Your task to perform on an android device: Open Youtube and go to "Your channel" Image 0: 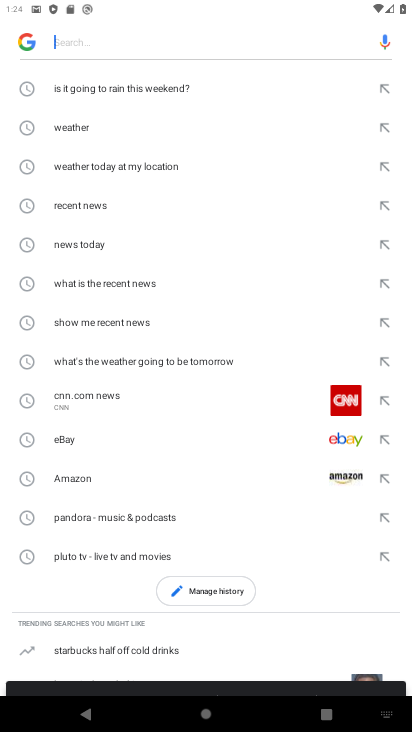
Step 0: press home button
Your task to perform on an android device: Open Youtube and go to "Your channel" Image 1: 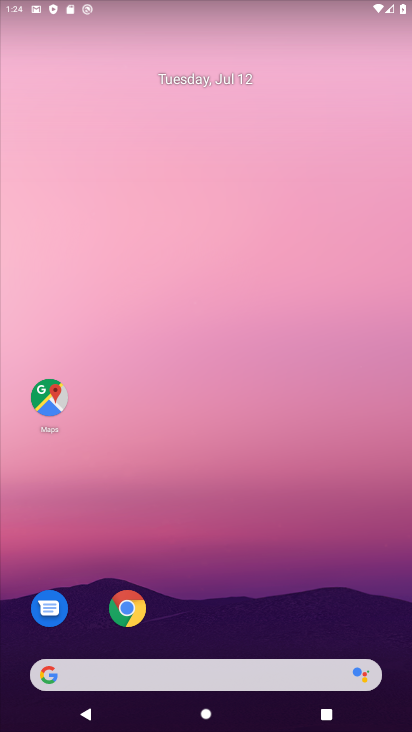
Step 1: drag from (312, 617) to (251, 60)
Your task to perform on an android device: Open Youtube and go to "Your channel" Image 2: 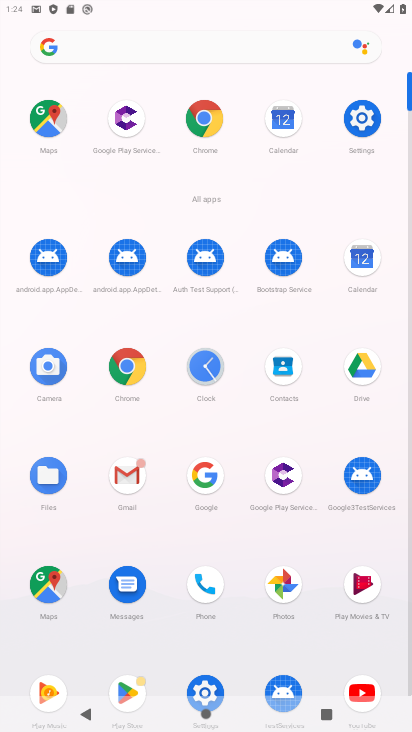
Step 2: click (367, 690)
Your task to perform on an android device: Open Youtube and go to "Your channel" Image 3: 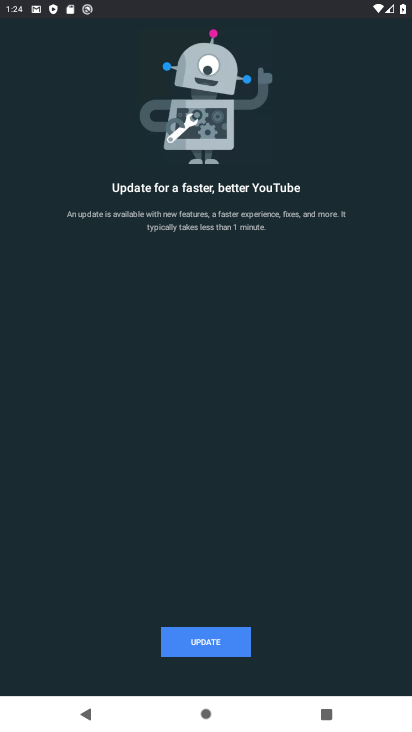
Step 3: click (232, 646)
Your task to perform on an android device: Open Youtube and go to "Your channel" Image 4: 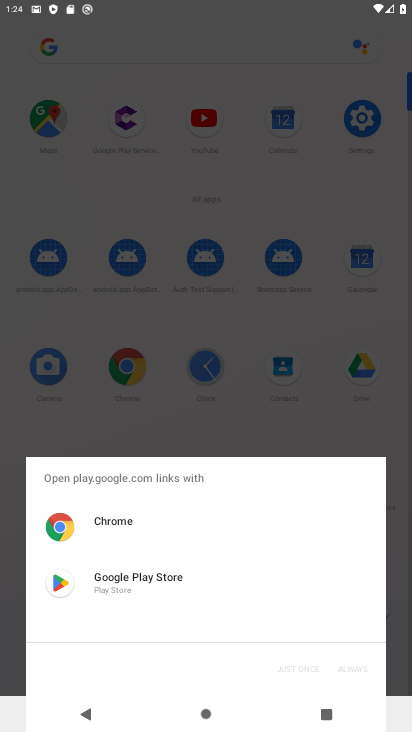
Step 4: click (212, 589)
Your task to perform on an android device: Open Youtube and go to "Your channel" Image 5: 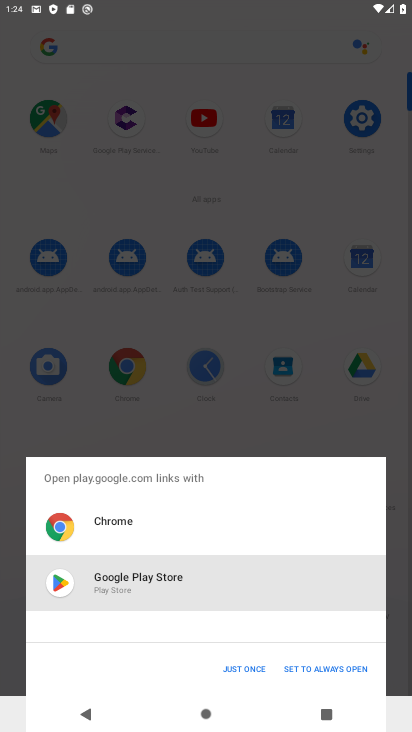
Step 5: click (237, 670)
Your task to perform on an android device: Open Youtube and go to "Your channel" Image 6: 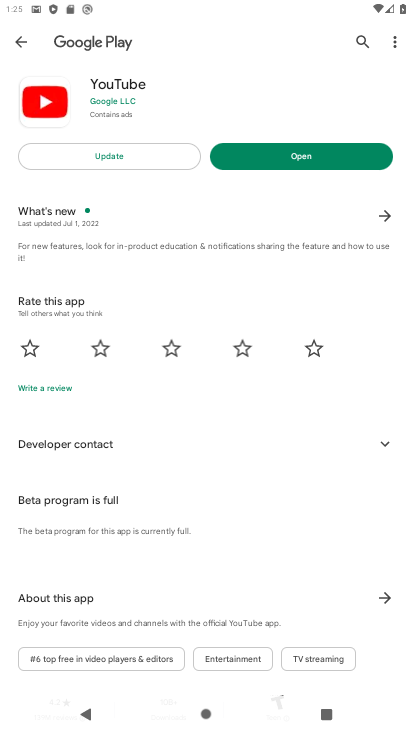
Step 6: click (138, 159)
Your task to perform on an android device: Open Youtube and go to "Your channel" Image 7: 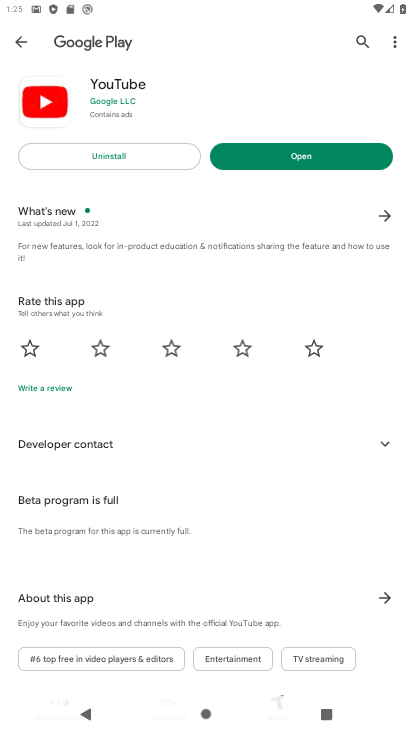
Step 7: click (312, 154)
Your task to perform on an android device: Open Youtube and go to "Your channel" Image 8: 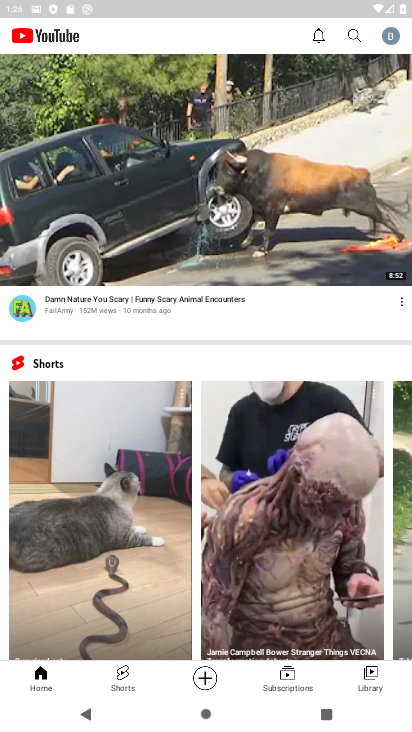
Step 8: click (394, 40)
Your task to perform on an android device: Open Youtube and go to "Your channel" Image 9: 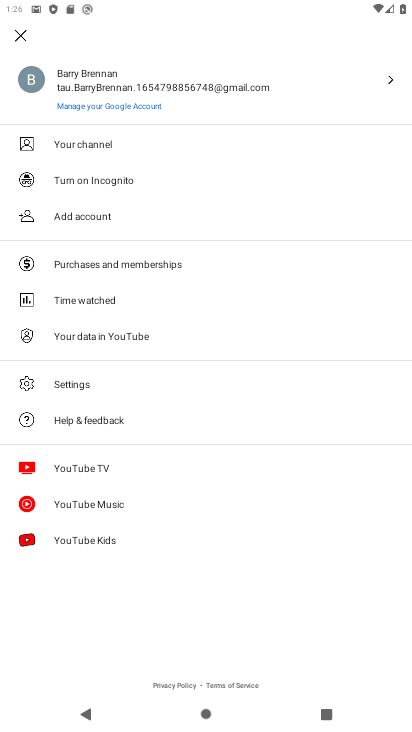
Step 9: click (295, 141)
Your task to perform on an android device: Open Youtube and go to "Your channel" Image 10: 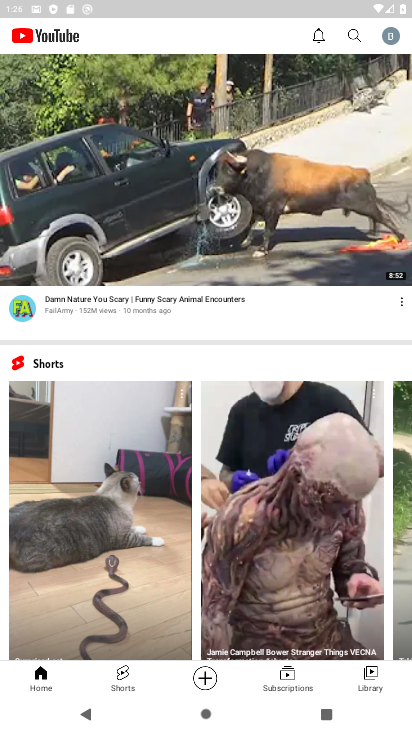
Step 10: click (392, 34)
Your task to perform on an android device: Open Youtube and go to "Your channel" Image 11: 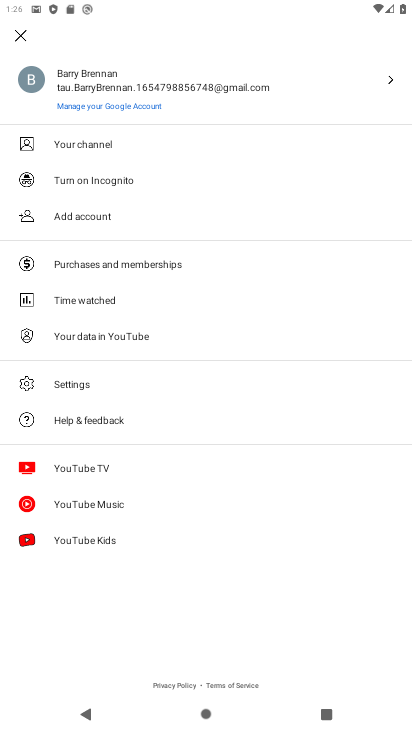
Step 11: click (169, 141)
Your task to perform on an android device: Open Youtube and go to "Your channel" Image 12: 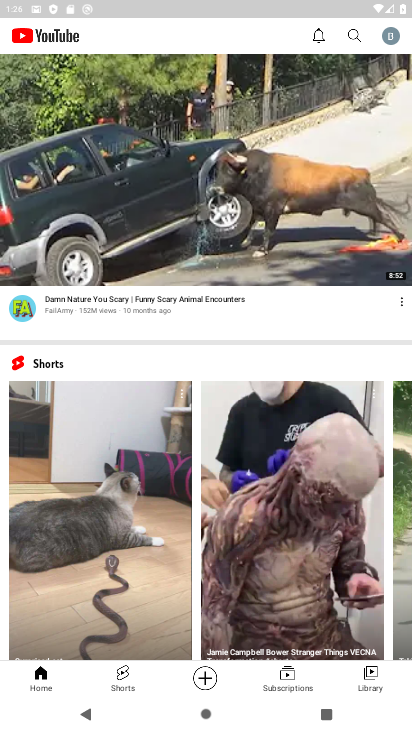
Step 12: task complete